Your task to perform on an android device: Open display settings Image 0: 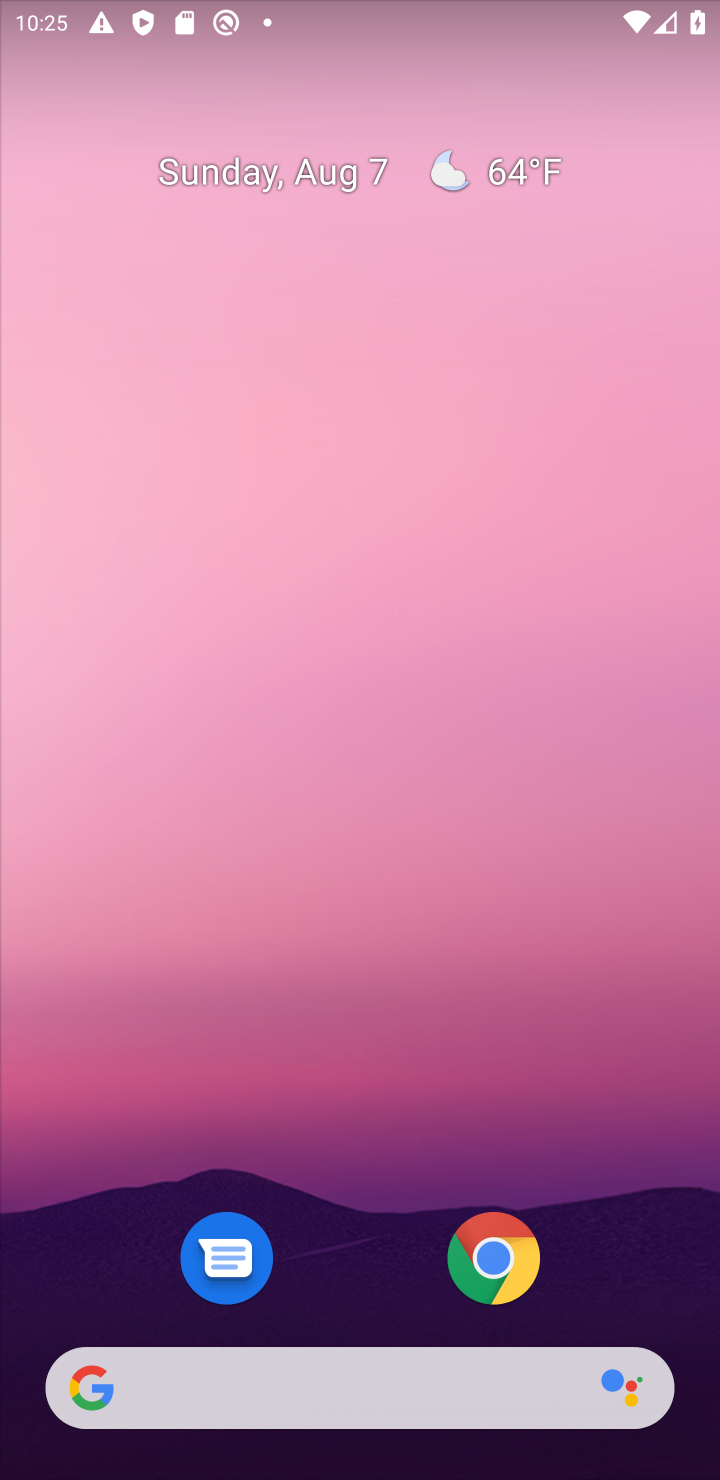
Step 0: drag from (384, 1123) to (387, 191)
Your task to perform on an android device: Open display settings Image 1: 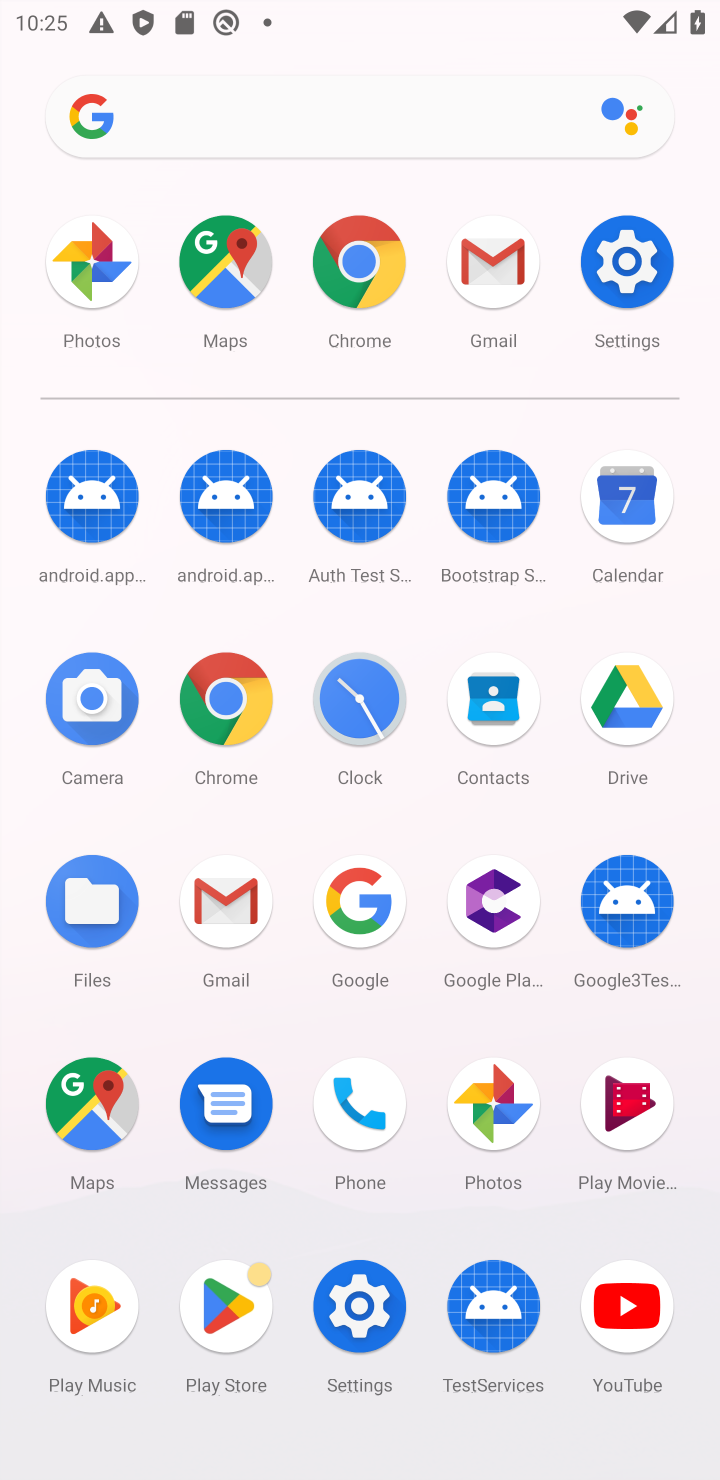
Step 1: click (624, 248)
Your task to perform on an android device: Open display settings Image 2: 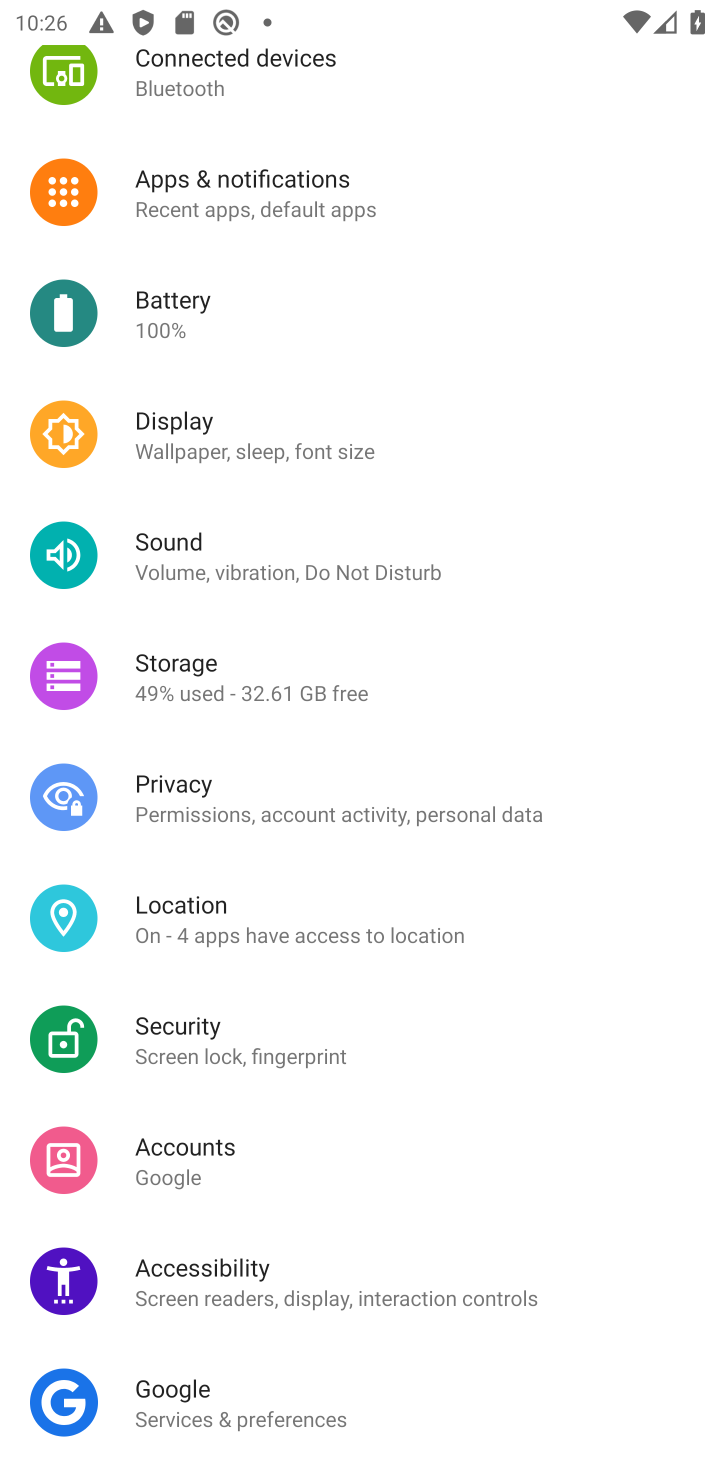
Step 2: click (155, 428)
Your task to perform on an android device: Open display settings Image 3: 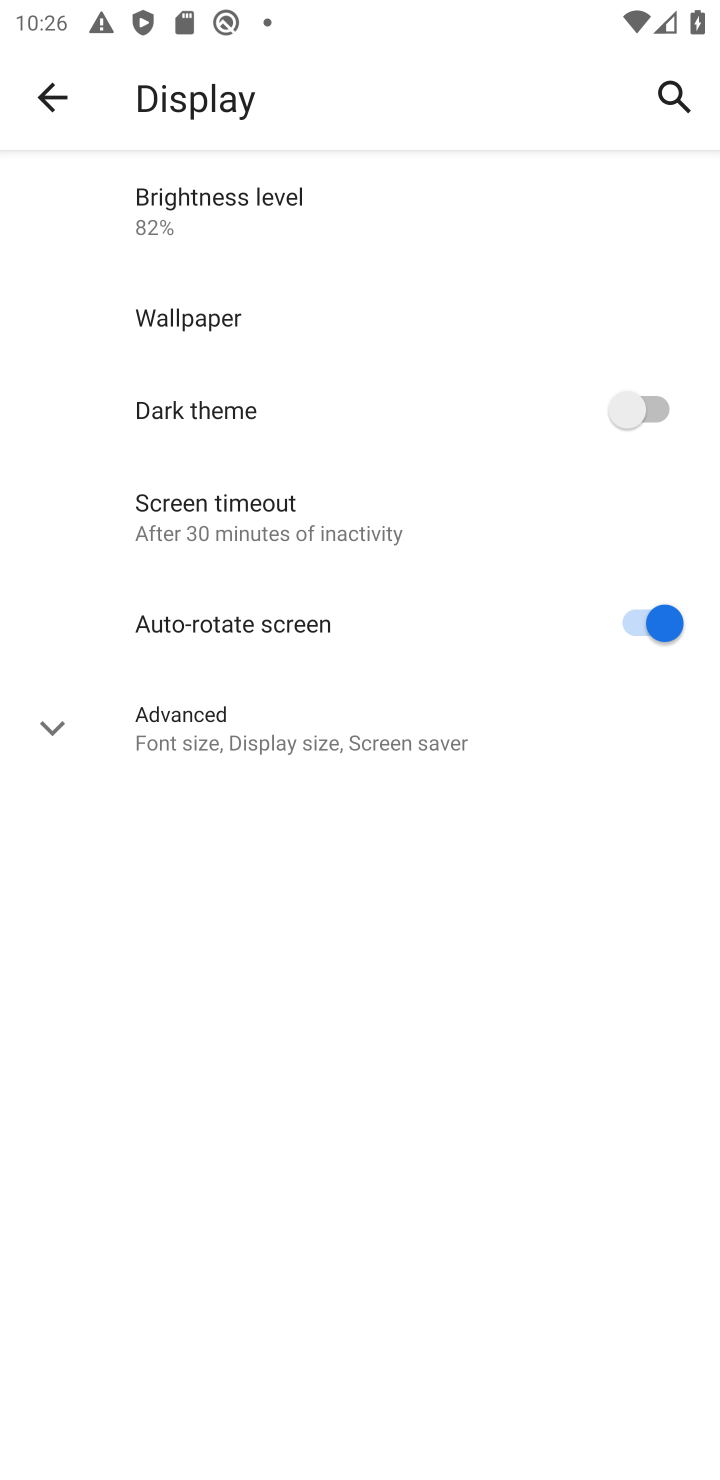
Step 3: task complete